Your task to perform on an android device: Turn on the flashlight Image 0: 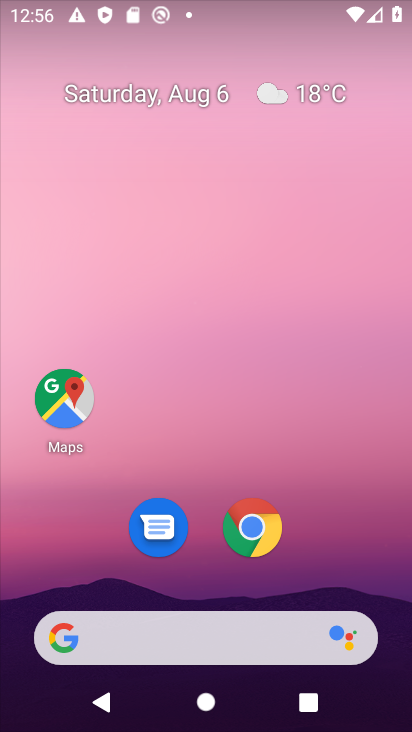
Step 0: drag from (236, 596) to (251, 98)
Your task to perform on an android device: Turn on the flashlight Image 1: 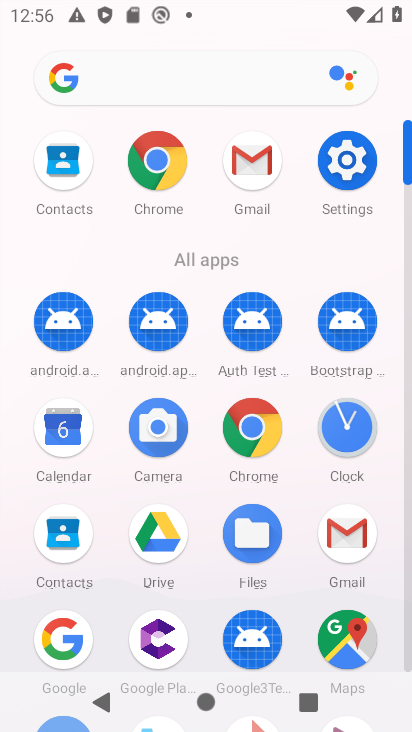
Step 1: click (349, 171)
Your task to perform on an android device: Turn on the flashlight Image 2: 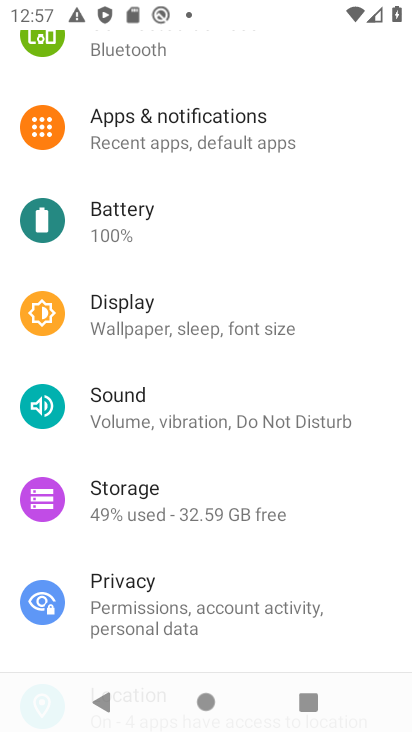
Step 2: task complete